Your task to perform on an android device: Clear all items from cart on bestbuy. Add logitech g910 to the cart on bestbuy, then select checkout. Image 0: 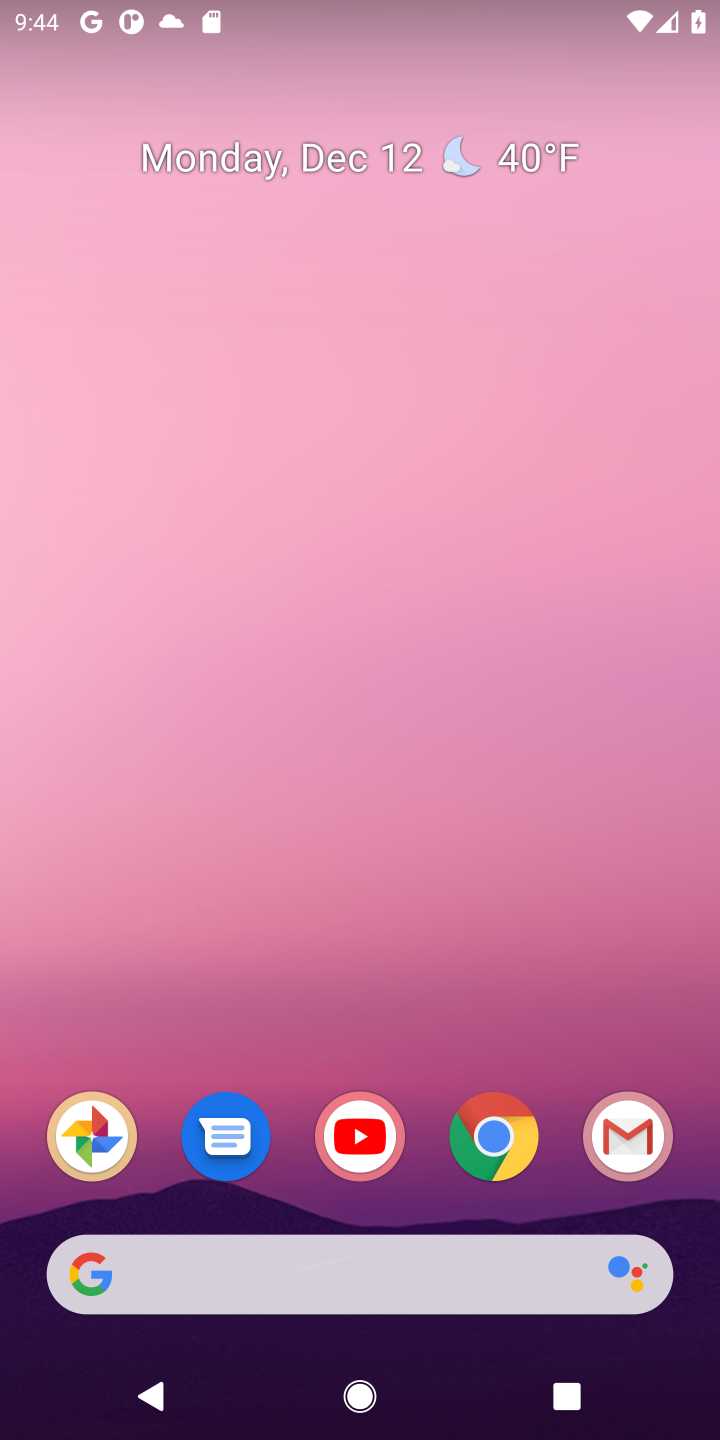
Step 0: click (490, 1142)
Your task to perform on an android device: Clear all items from cart on bestbuy. Add logitech g910 to the cart on bestbuy, then select checkout. Image 1: 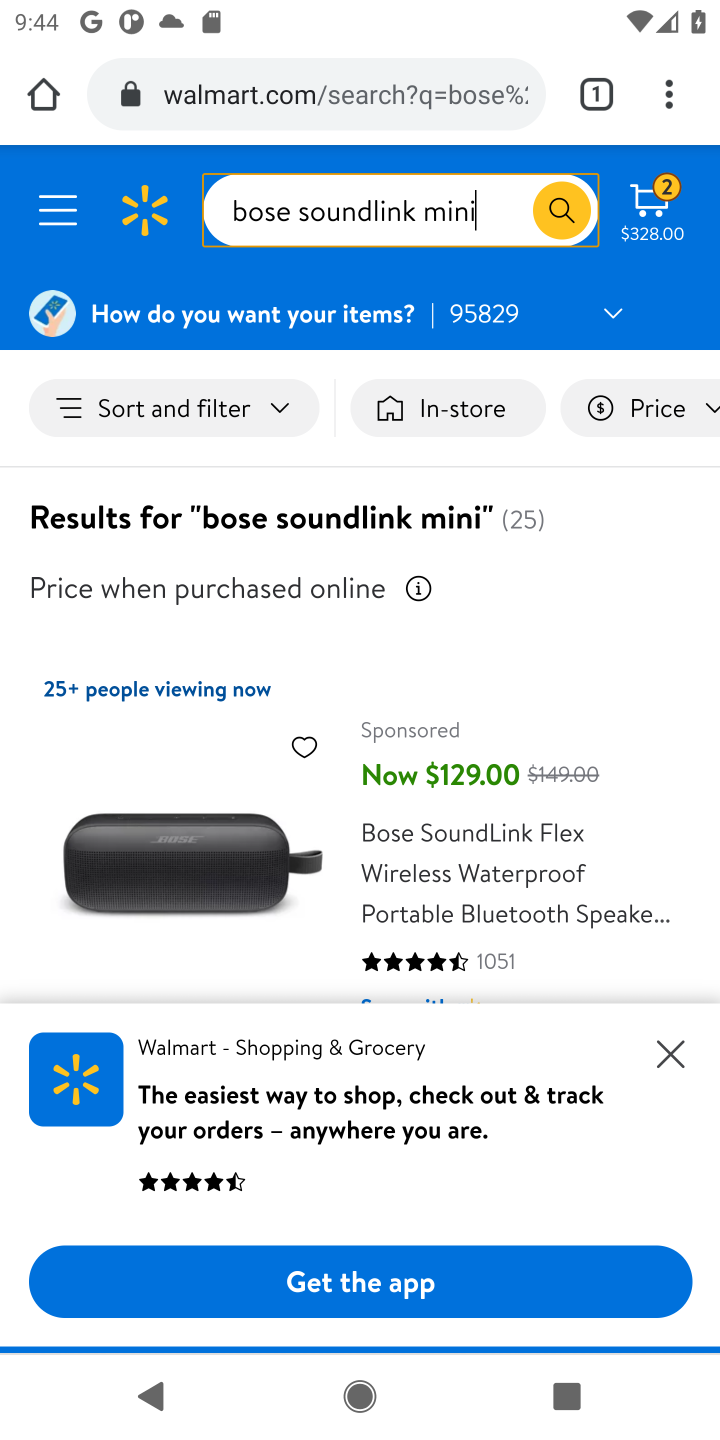
Step 1: click (281, 91)
Your task to perform on an android device: Clear all items from cart on bestbuy. Add logitech g910 to the cart on bestbuy, then select checkout. Image 2: 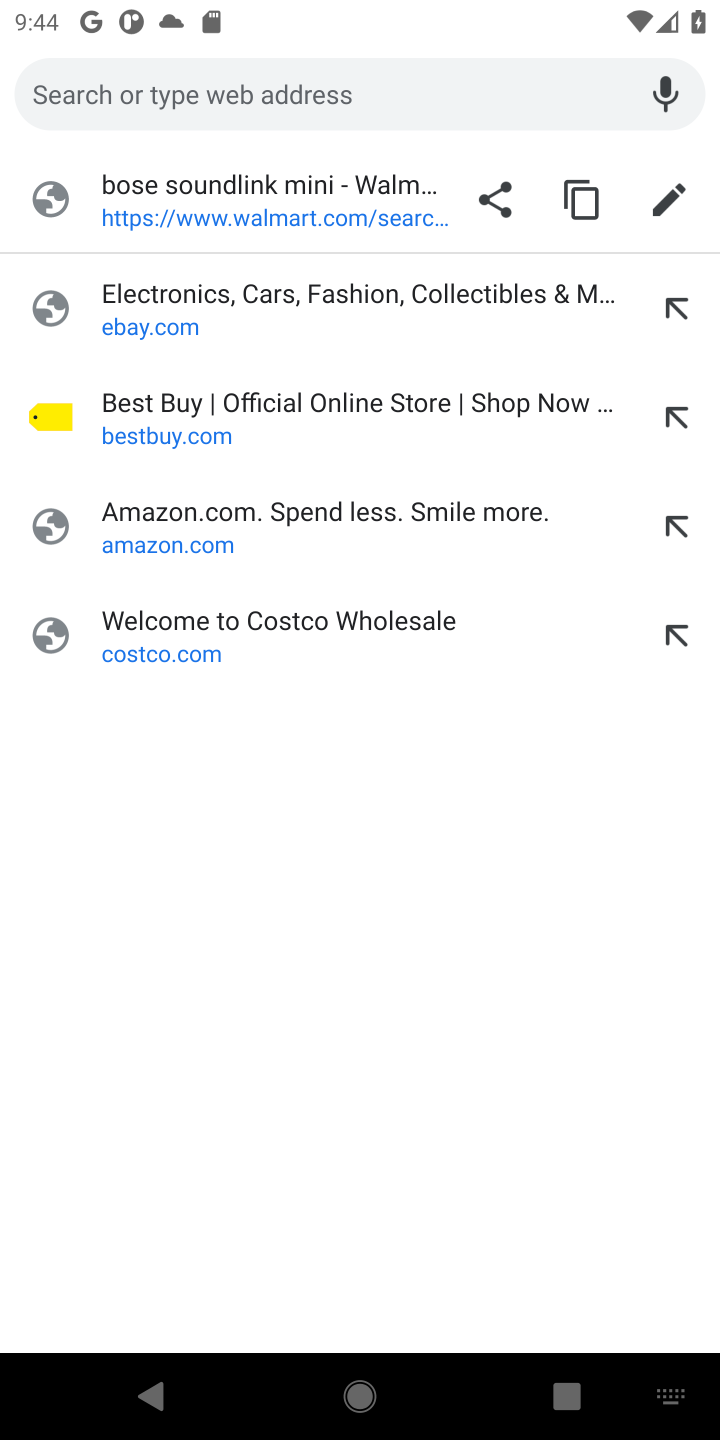
Step 2: click (154, 426)
Your task to perform on an android device: Clear all items from cart on bestbuy. Add logitech g910 to the cart on bestbuy, then select checkout. Image 3: 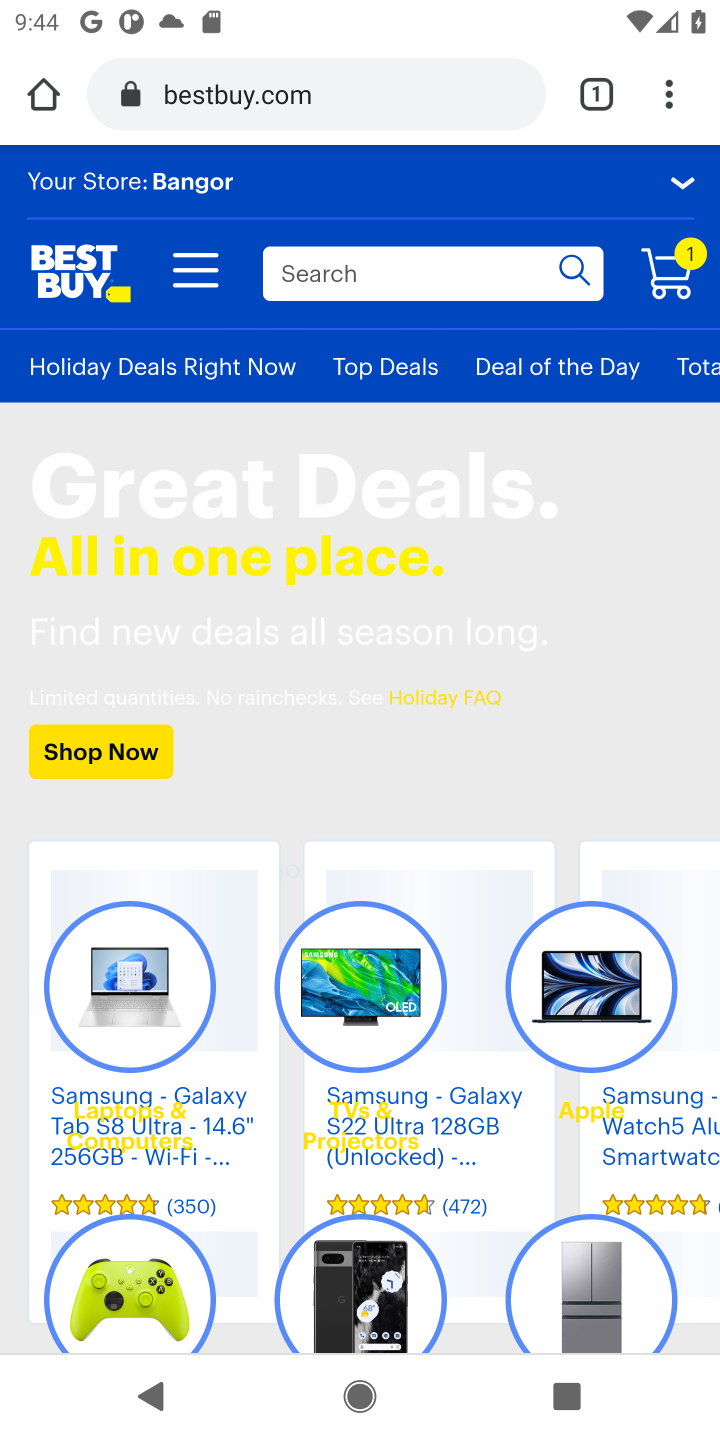
Step 3: click (670, 277)
Your task to perform on an android device: Clear all items from cart on bestbuy. Add logitech g910 to the cart on bestbuy, then select checkout. Image 4: 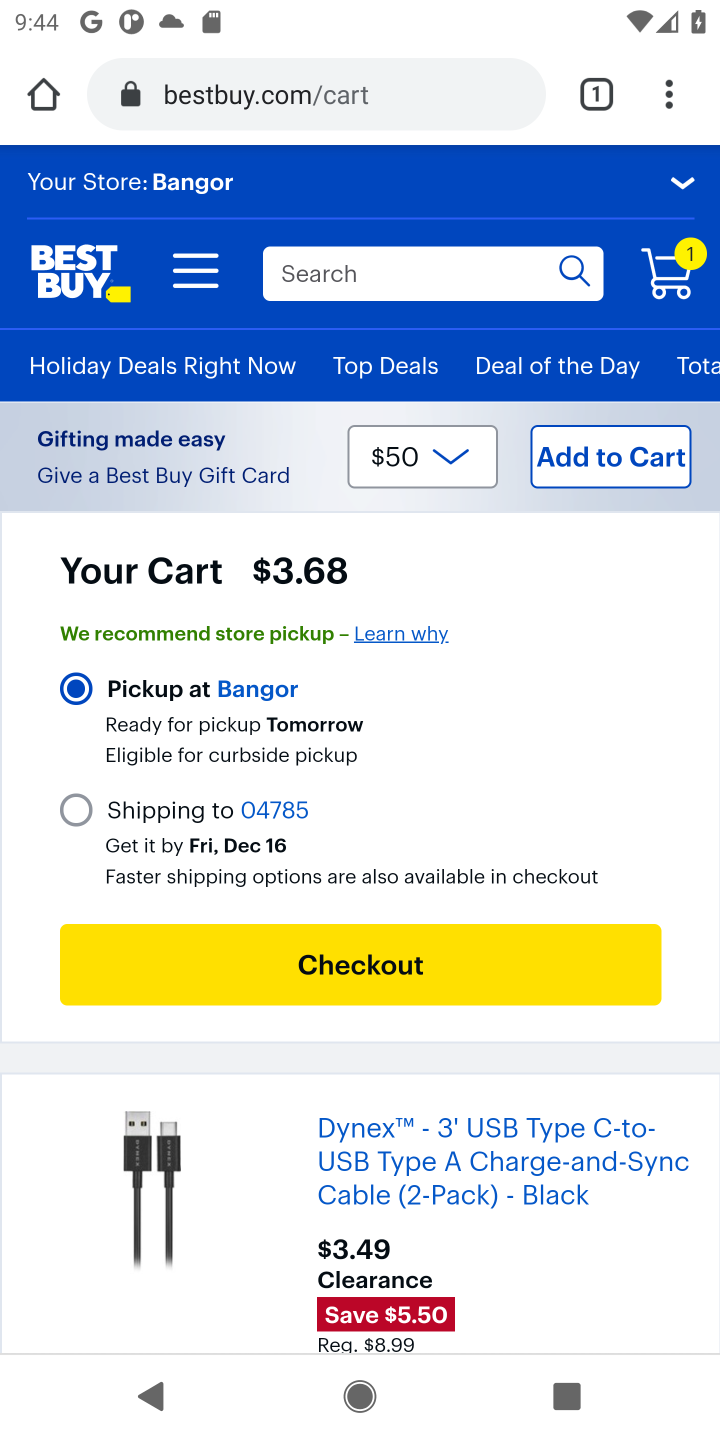
Step 4: drag from (288, 873) to (298, 479)
Your task to perform on an android device: Clear all items from cart on bestbuy. Add logitech g910 to the cart on bestbuy, then select checkout. Image 5: 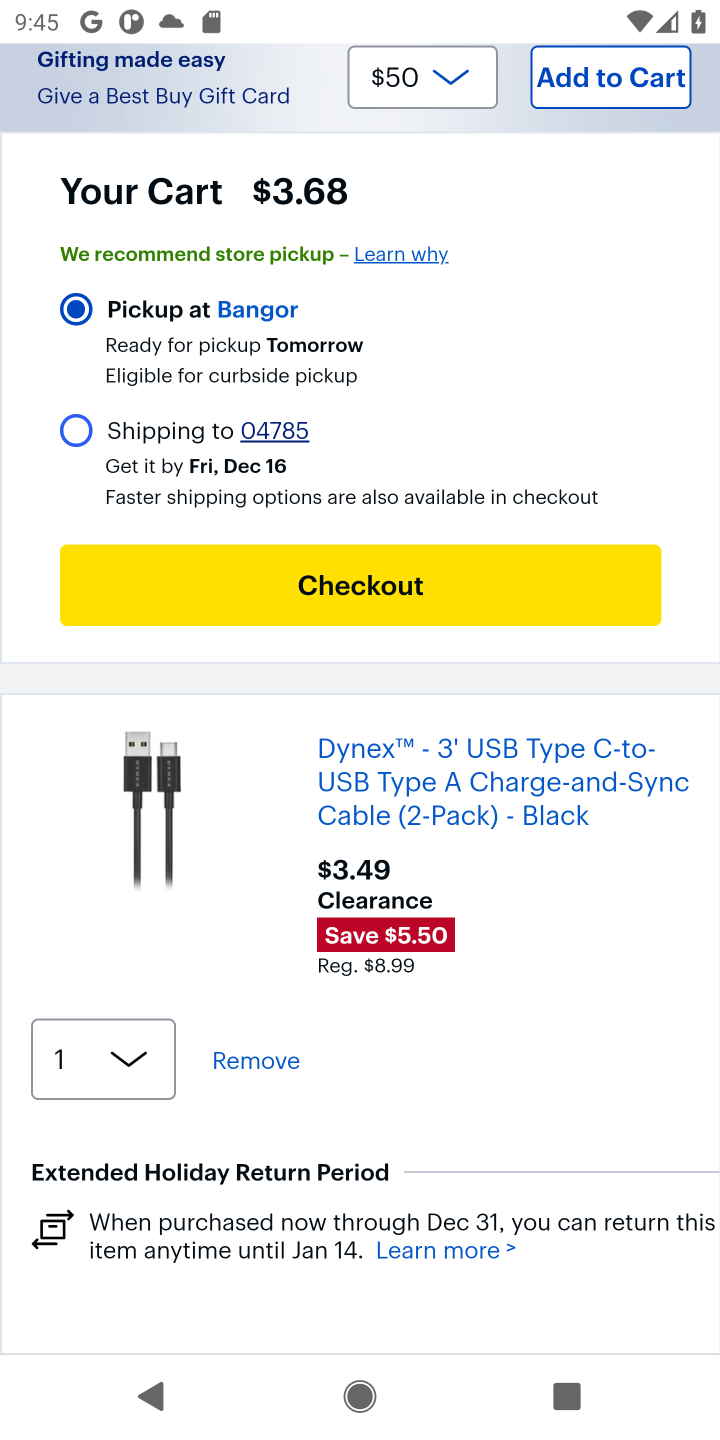
Step 5: click (239, 1065)
Your task to perform on an android device: Clear all items from cart on bestbuy. Add logitech g910 to the cart on bestbuy, then select checkout. Image 6: 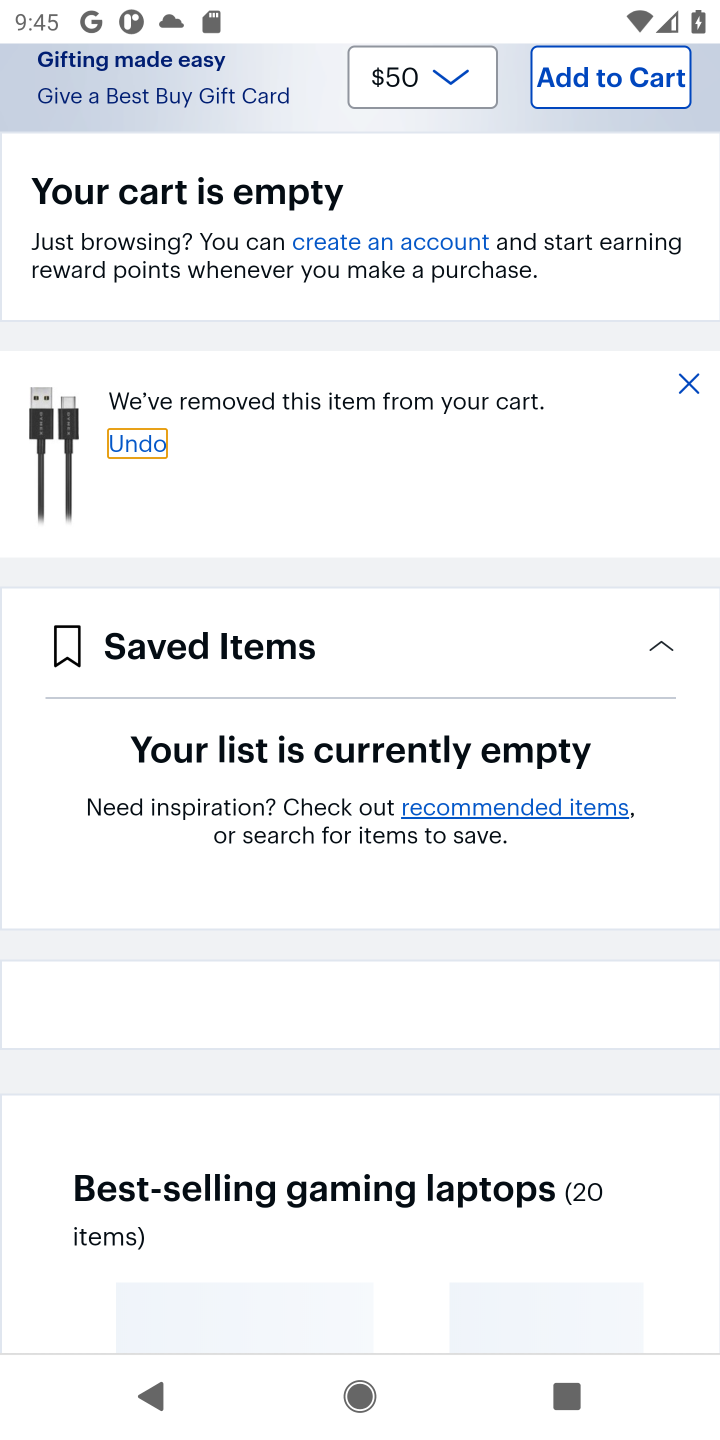
Step 6: drag from (525, 399) to (449, 1057)
Your task to perform on an android device: Clear all items from cart on bestbuy. Add logitech g910 to the cart on bestbuy, then select checkout. Image 7: 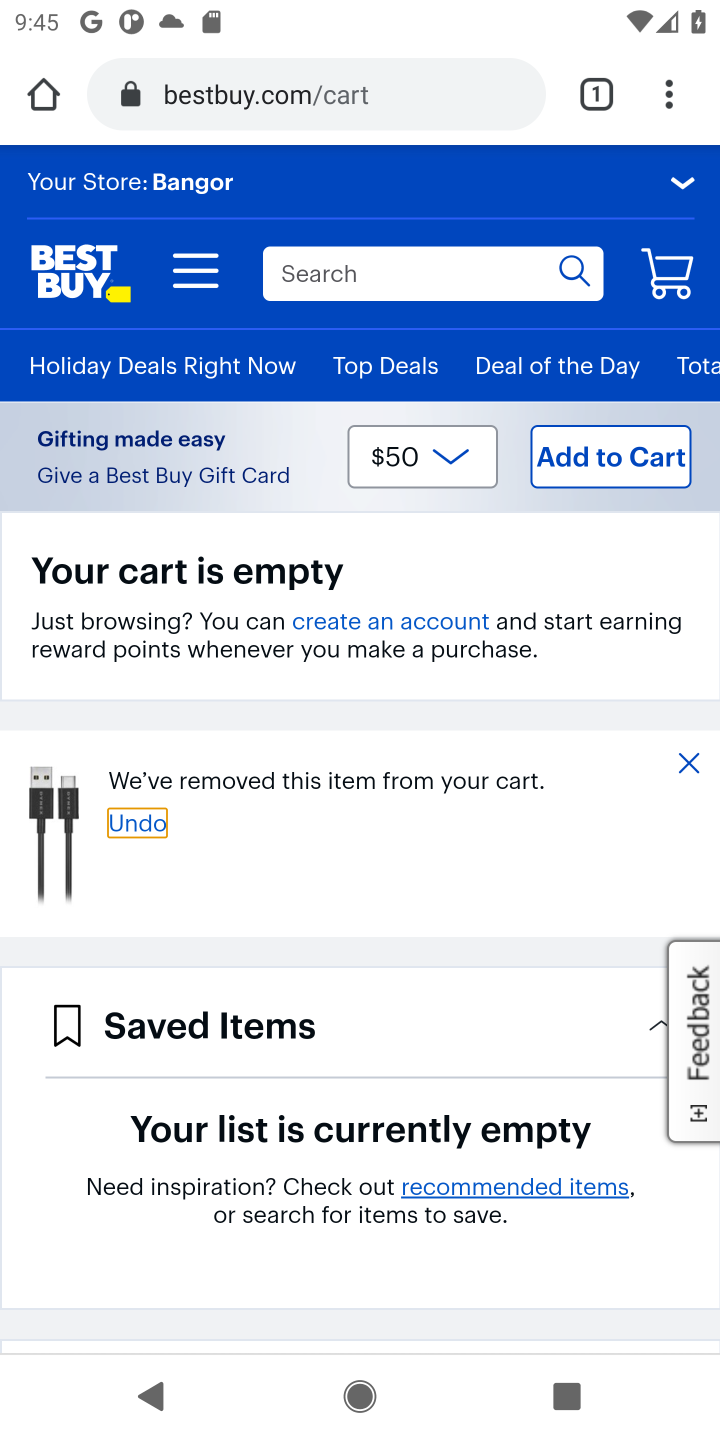
Step 7: click (287, 281)
Your task to perform on an android device: Clear all items from cart on bestbuy. Add logitech g910 to the cart on bestbuy, then select checkout. Image 8: 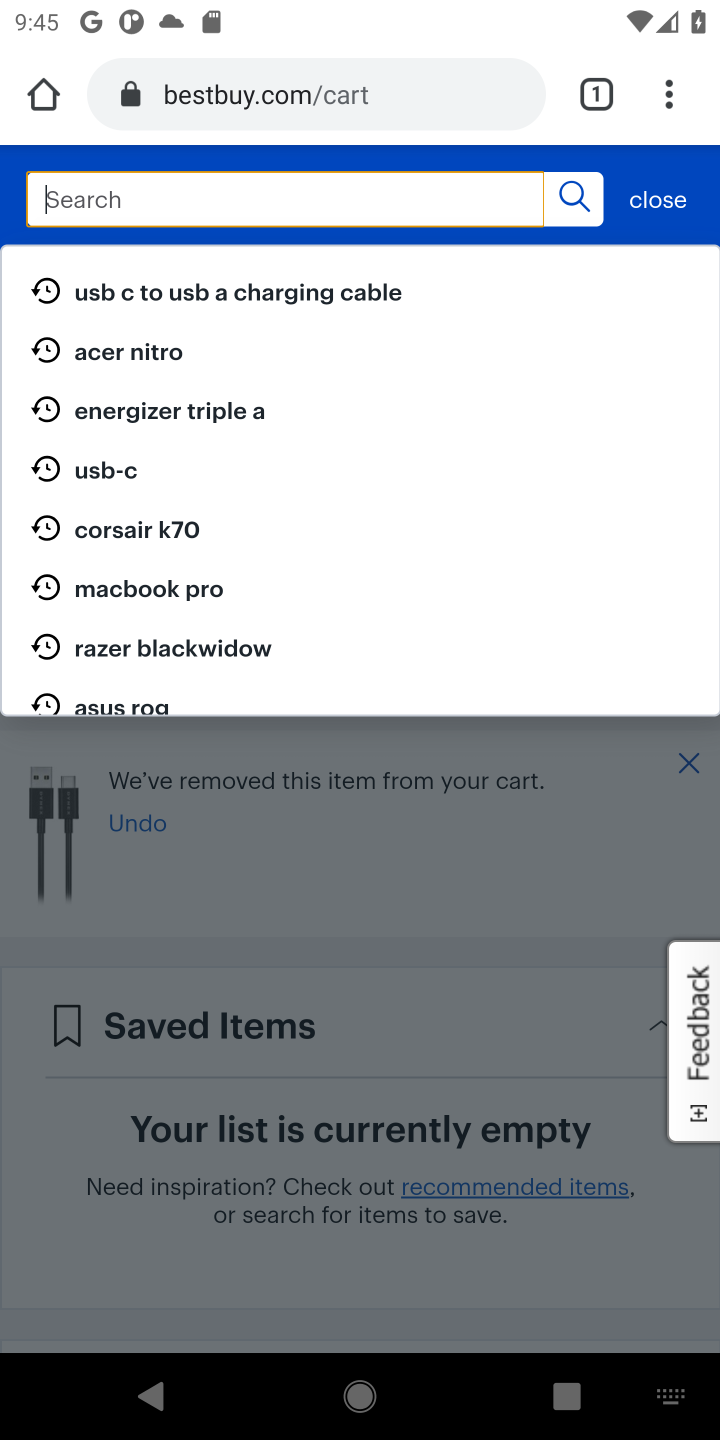
Step 8: type "logitech g910"
Your task to perform on an android device: Clear all items from cart on bestbuy. Add logitech g910 to the cart on bestbuy, then select checkout. Image 9: 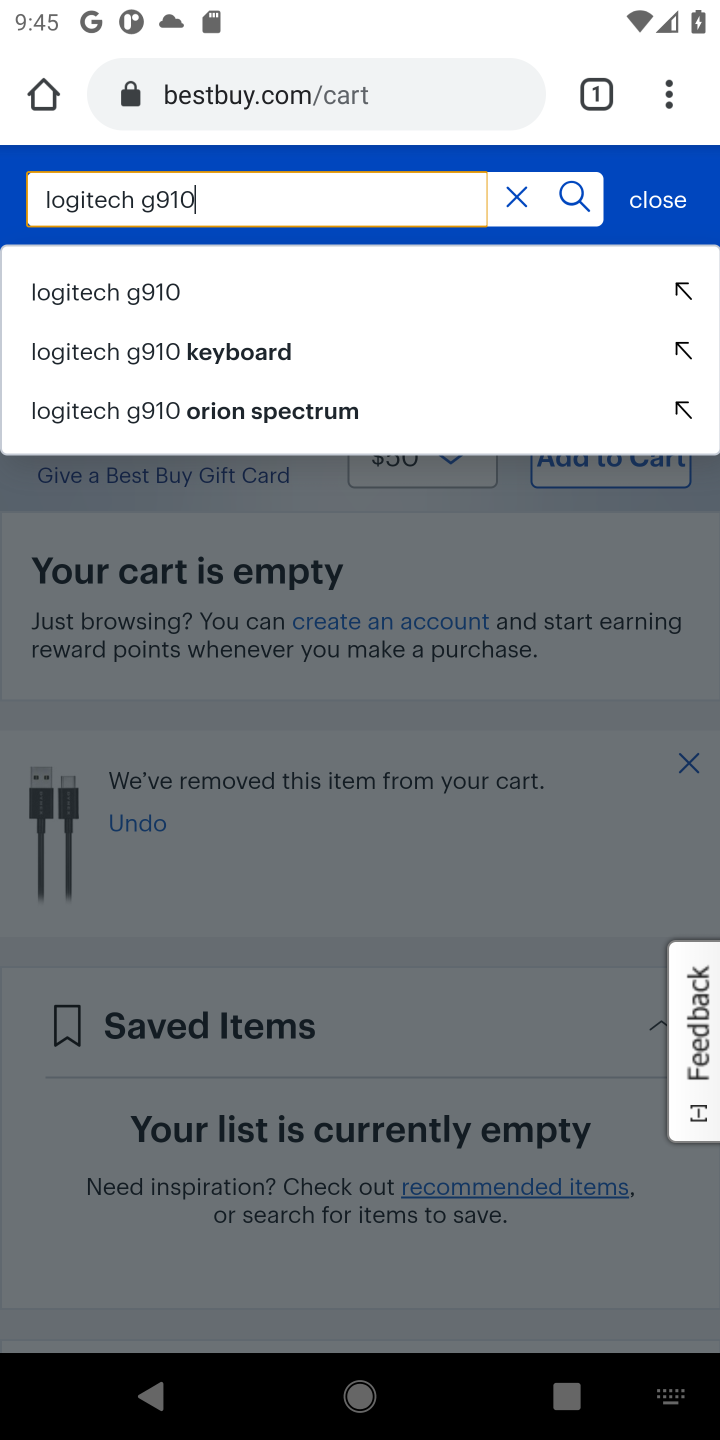
Step 9: click (126, 300)
Your task to perform on an android device: Clear all items from cart on bestbuy. Add logitech g910 to the cart on bestbuy, then select checkout. Image 10: 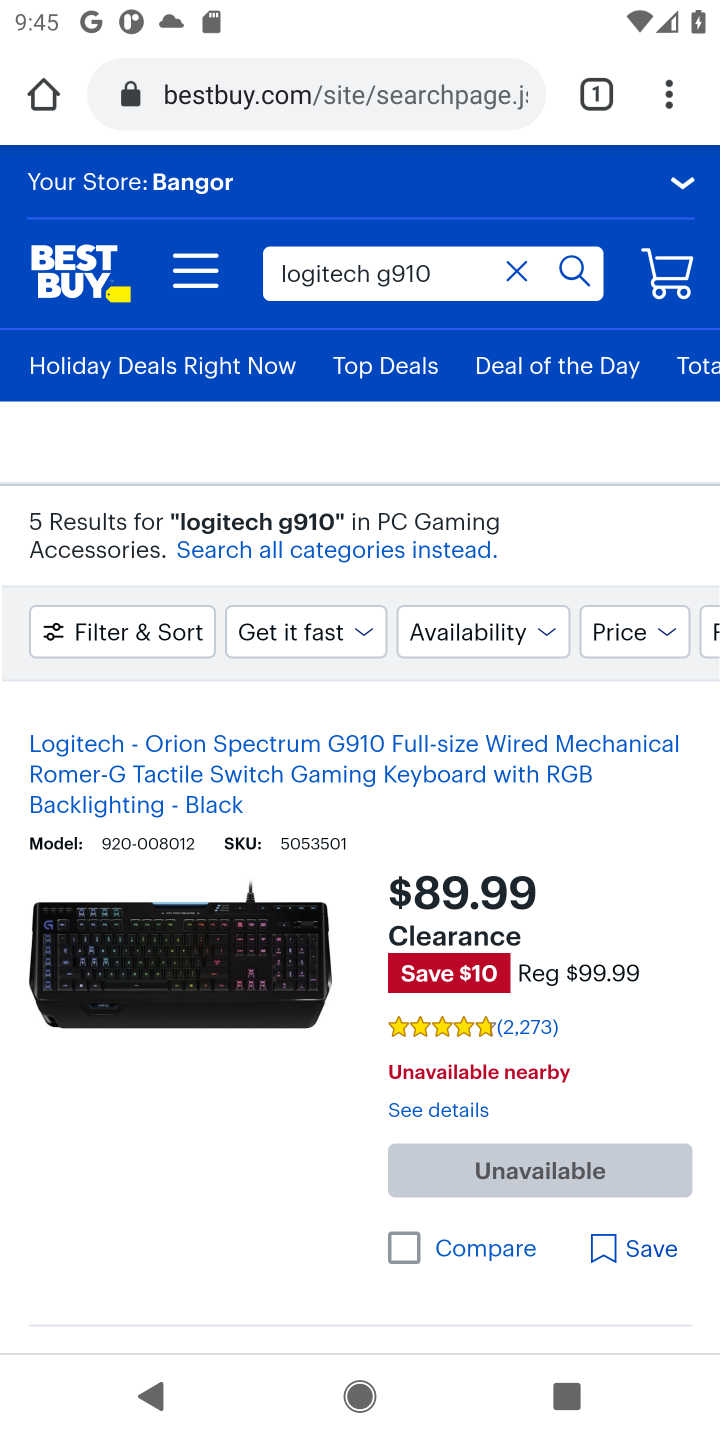
Step 10: task complete